Your task to perform on an android device: Show me the alarms in the clock app Image 0: 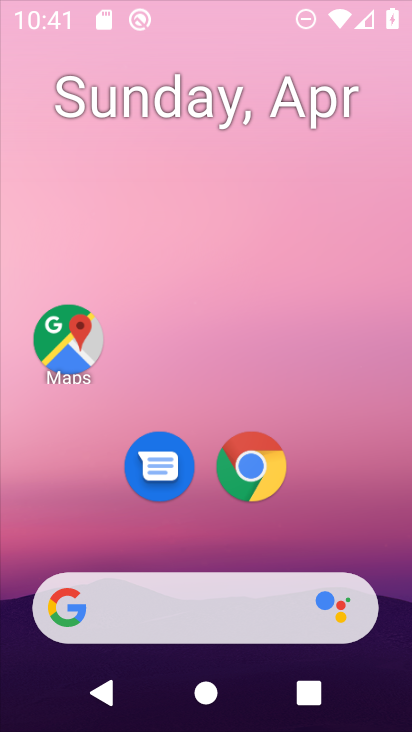
Step 0: click (336, 93)
Your task to perform on an android device: Show me the alarms in the clock app Image 1: 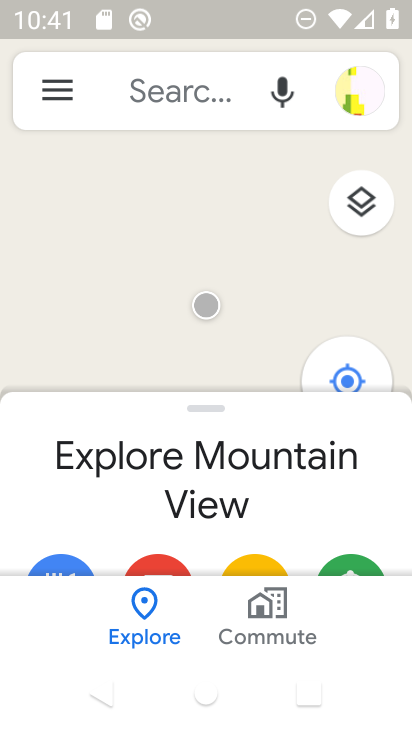
Step 1: press home button
Your task to perform on an android device: Show me the alarms in the clock app Image 2: 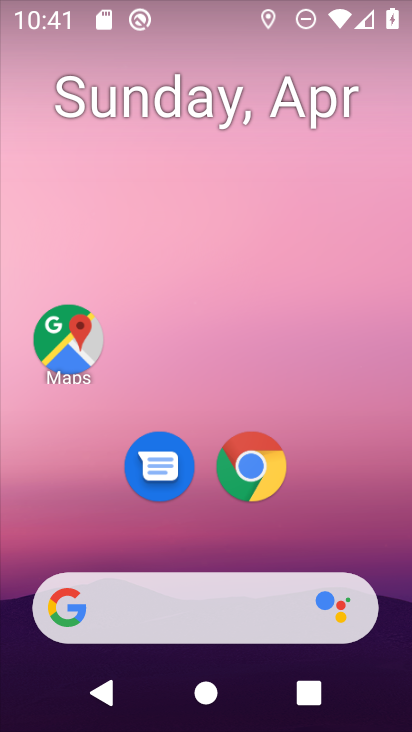
Step 2: drag from (367, 497) to (369, 86)
Your task to perform on an android device: Show me the alarms in the clock app Image 3: 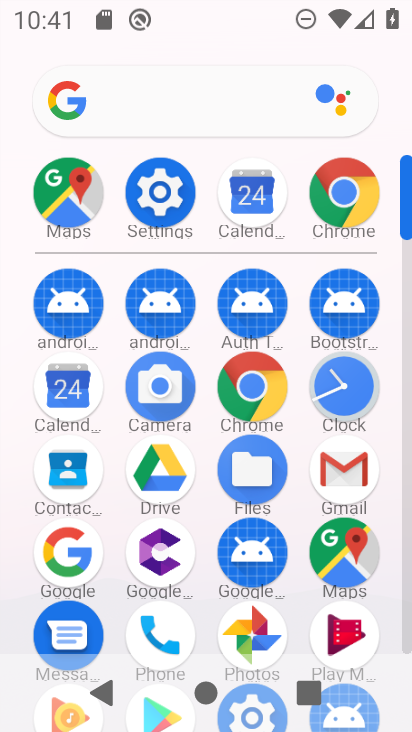
Step 3: click (343, 383)
Your task to perform on an android device: Show me the alarms in the clock app Image 4: 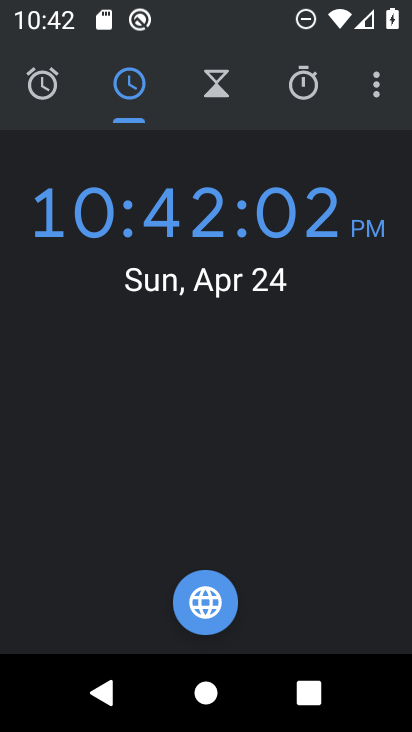
Step 4: click (51, 93)
Your task to perform on an android device: Show me the alarms in the clock app Image 5: 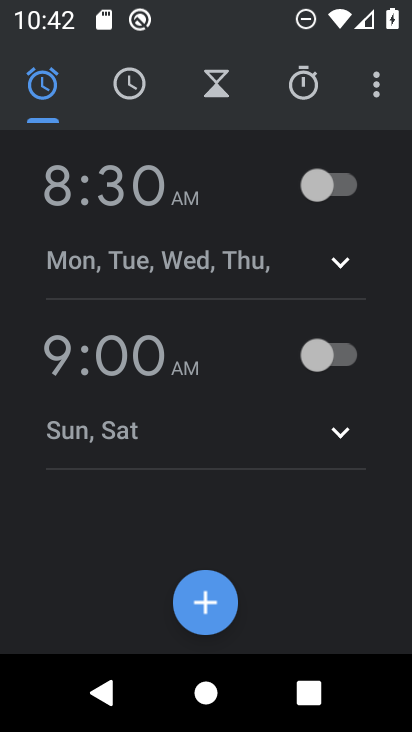
Step 5: task complete